Your task to perform on an android device: Go to eBay Image 0: 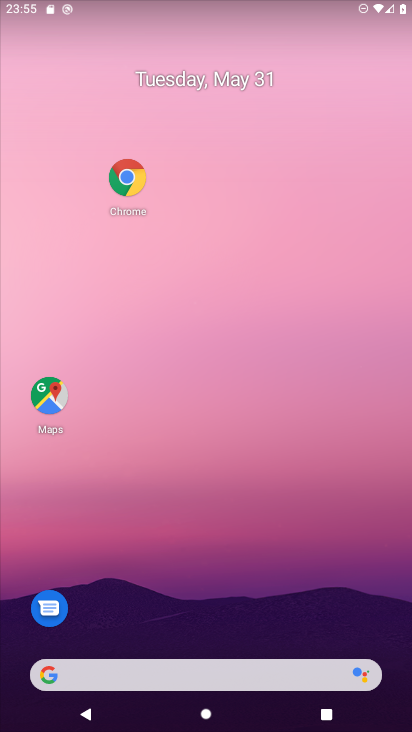
Step 0: click (106, 174)
Your task to perform on an android device: Go to eBay Image 1: 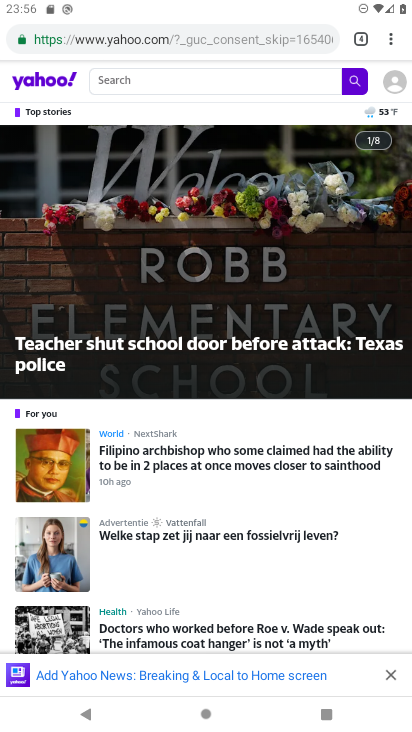
Step 1: click (210, 36)
Your task to perform on an android device: Go to eBay Image 2: 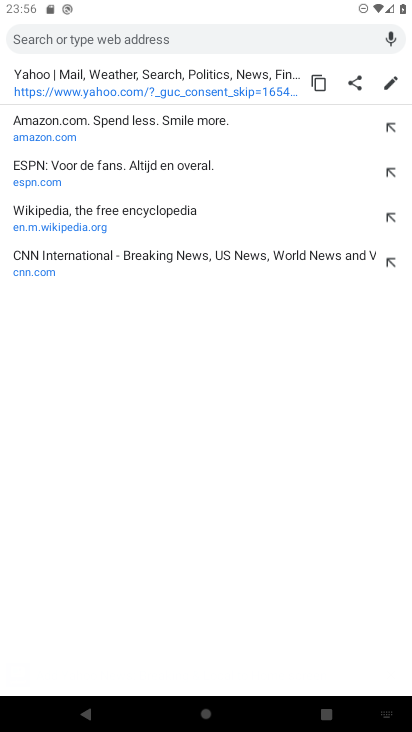
Step 2: type " eBay"
Your task to perform on an android device: Go to eBay Image 3: 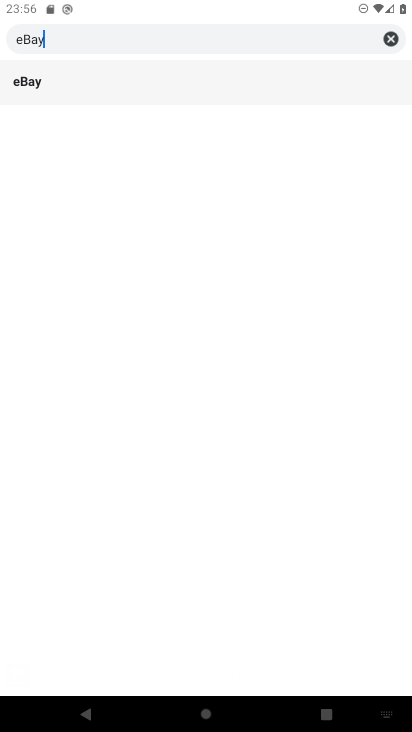
Step 3: type ""
Your task to perform on an android device: Go to eBay Image 4: 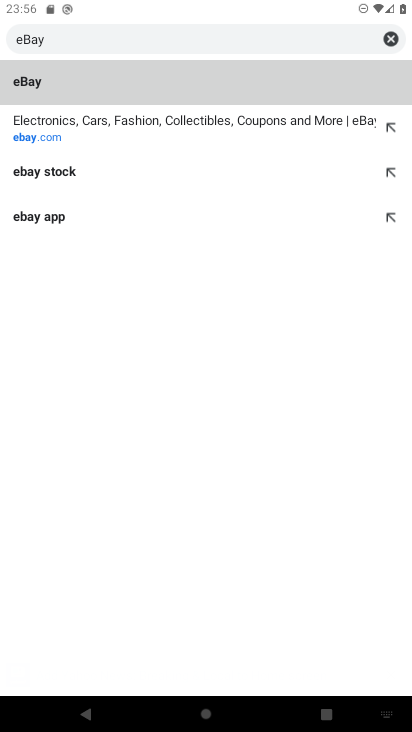
Step 4: click (126, 133)
Your task to perform on an android device: Go to eBay Image 5: 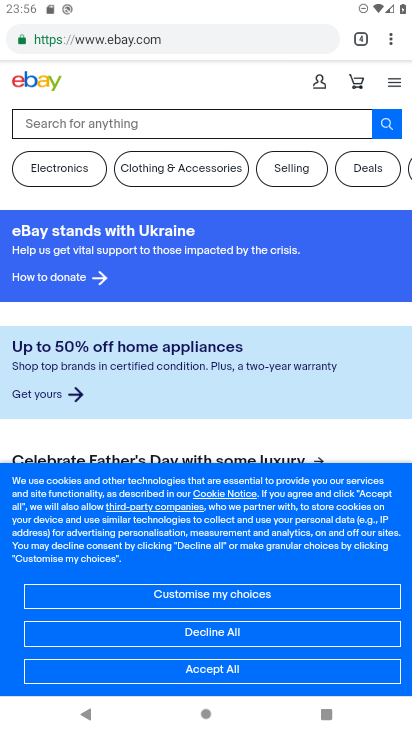
Step 5: task complete